Your task to perform on an android device: Open accessibility settings Image 0: 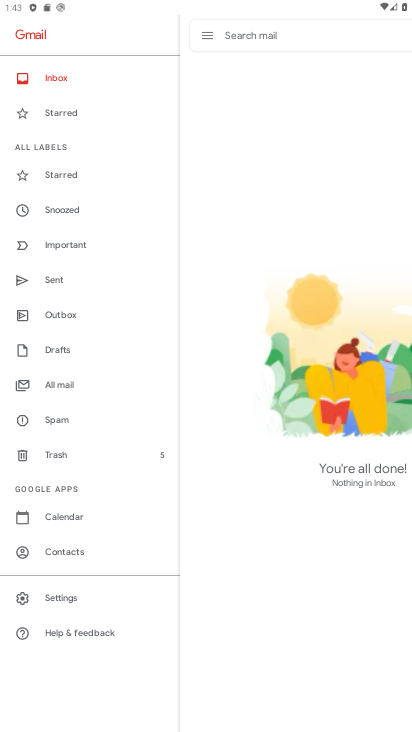
Step 0: press home button
Your task to perform on an android device: Open accessibility settings Image 1: 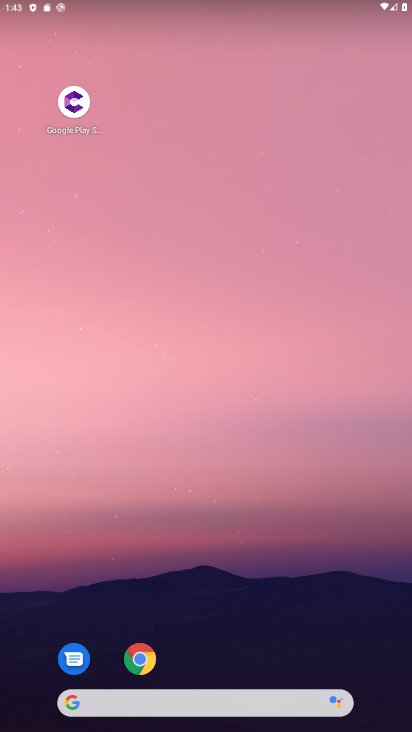
Step 1: drag from (297, 264) to (279, 141)
Your task to perform on an android device: Open accessibility settings Image 2: 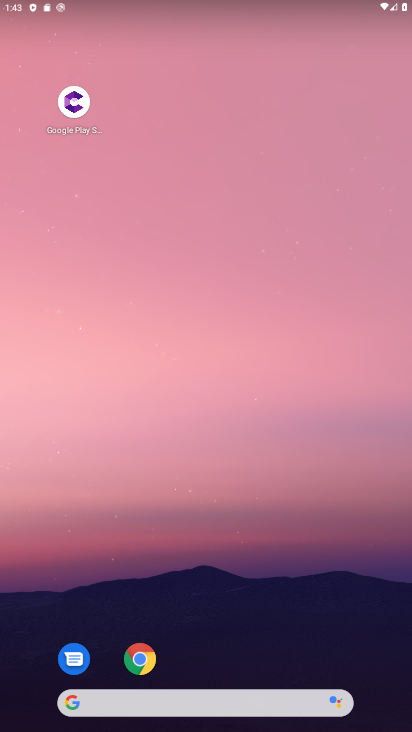
Step 2: drag from (385, 677) to (291, 109)
Your task to perform on an android device: Open accessibility settings Image 3: 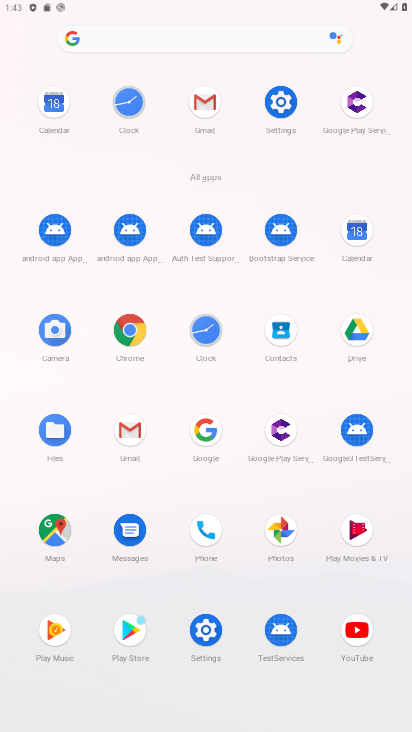
Step 3: click (278, 105)
Your task to perform on an android device: Open accessibility settings Image 4: 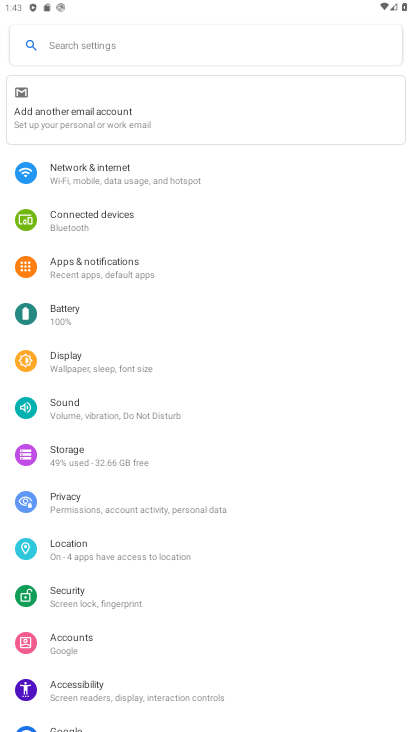
Step 4: click (138, 703)
Your task to perform on an android device: Open accessibility settings Image 5: 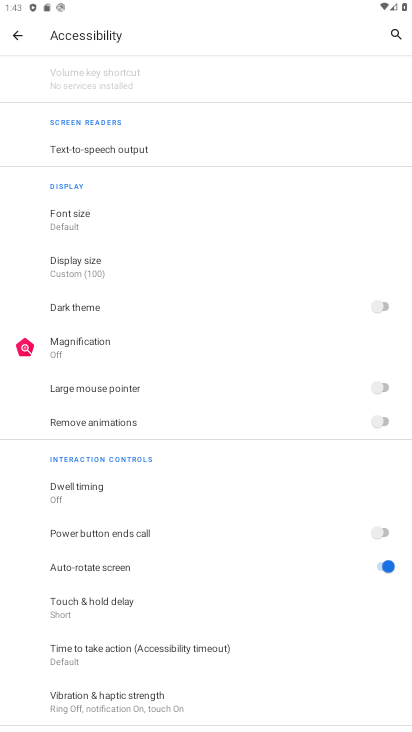
Step 5: task complete